Your task to perform on an android device: Go to Android settings Image 0: 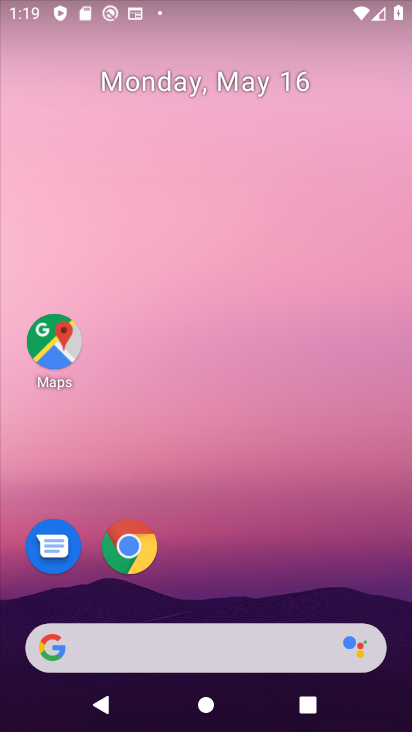
Step 0: drag from (167, 614) to (282, 131)
Your task to perform on an android device: Go to Android settings Image 1: 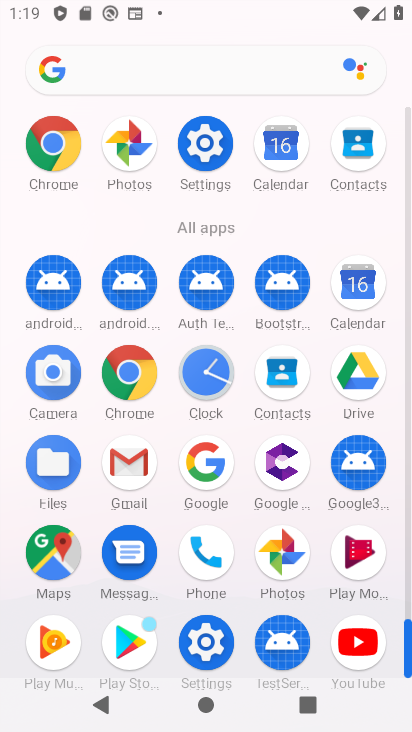
Step 1: click (205, 147)
Your task to perform on an android device: Go to Android settings Image 2: 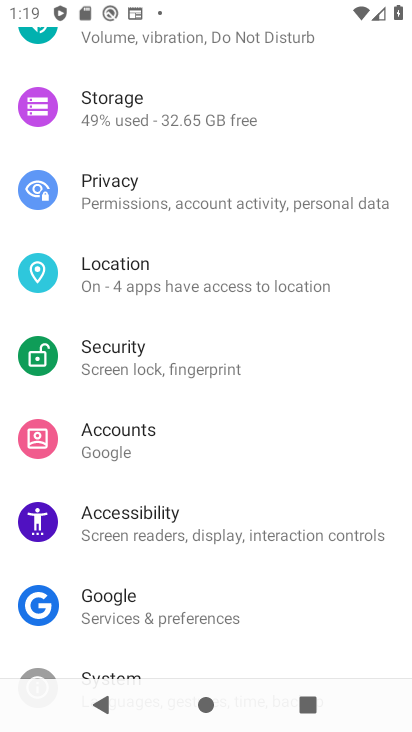
Step 2: drag from (182, 610) to (332, 56)
Your task to perform on an android device: Go to Android settings Image 3: 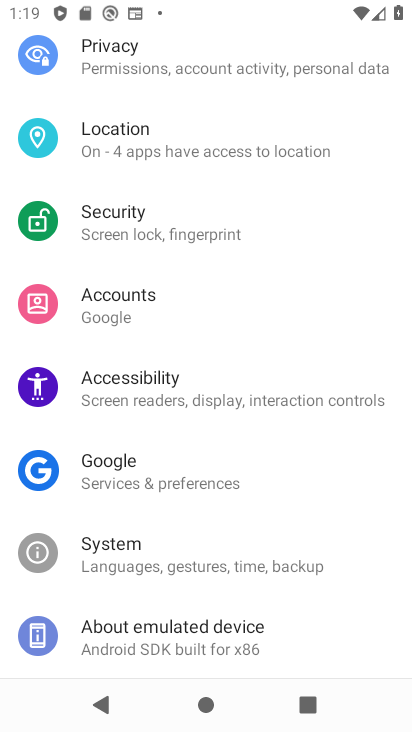
Step 3: click (180, 636)
Your task to perform on an android device: Go to Android settings Image 4: 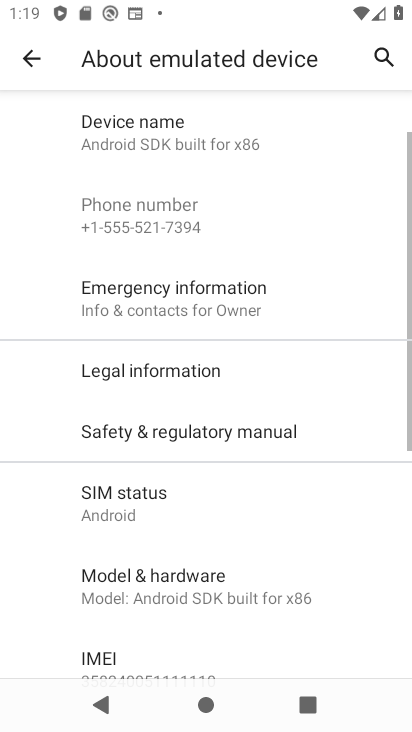
Step 4: task complete